Your task to perform on an android device: Go to Maps Image 0: 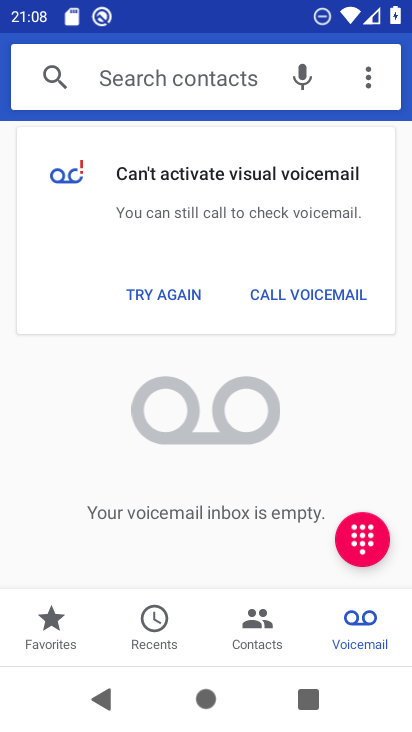
Step 0: press home button
Your task to perform on an android device: Go to Maps Image 1: 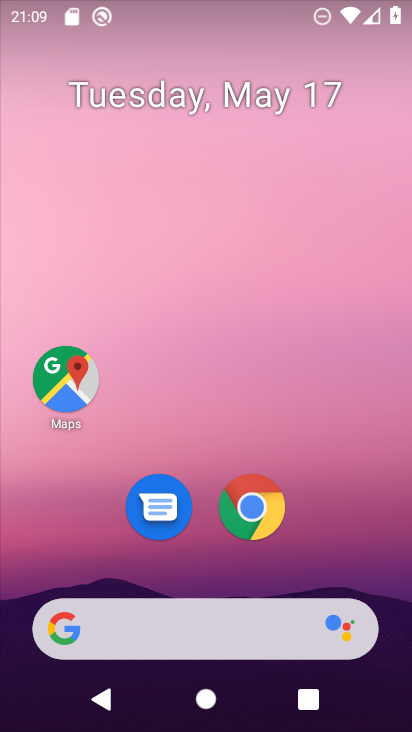
Step 1: click (64, 373)
Your task to perform on an android device: Go to Maps Image 2: 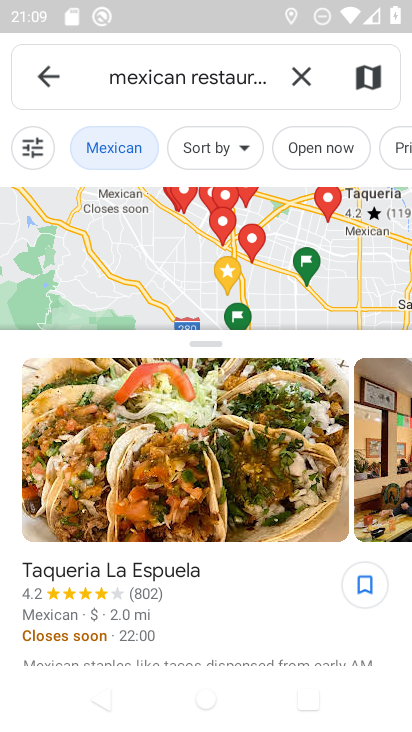
Step 2: task complete